Your task to perform on an android device: empty trash in the gmail app Image 0: 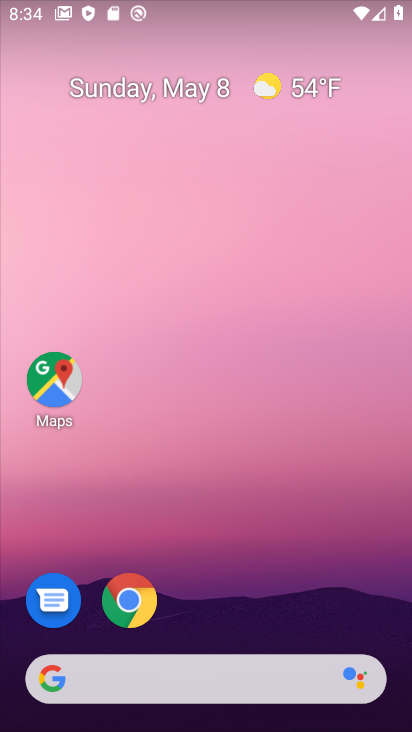
Step 0: drag from (194, 627) to (249, 209)
Your task to perform on an android device: empty trash in the gmail app Image 1: 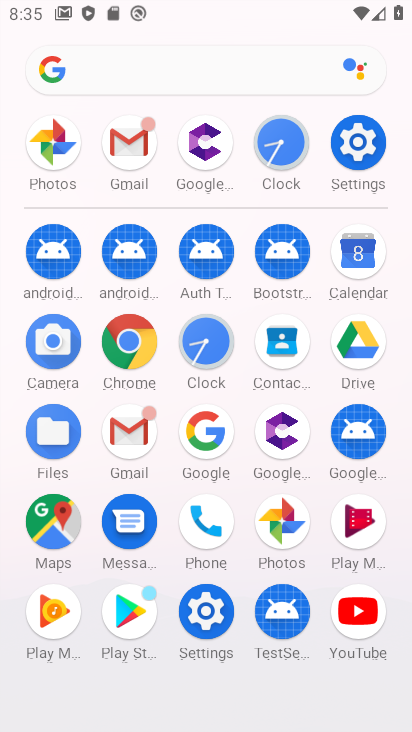
Step 1: click (151, 127)
Your task to perform on an android device: empty trash in the gmail app Image 2: 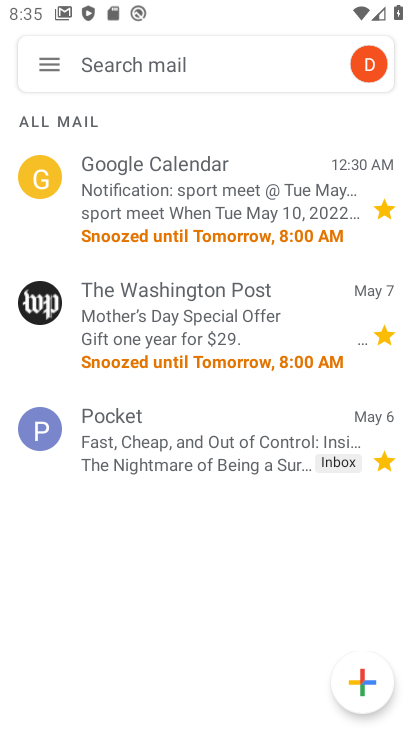
Step 2: click (44, 70)
Your task to perform on an android device: empty trash in the gmail app Image 3: 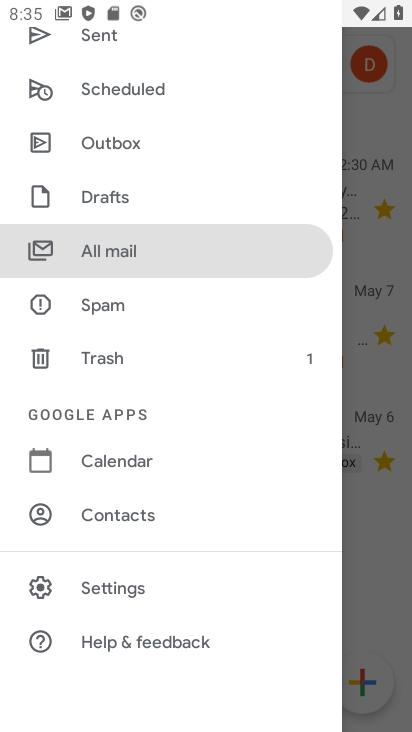
Step 3: click (225, 364)
Your task to perform on an android device: empty trash in the gmail app Image 4: 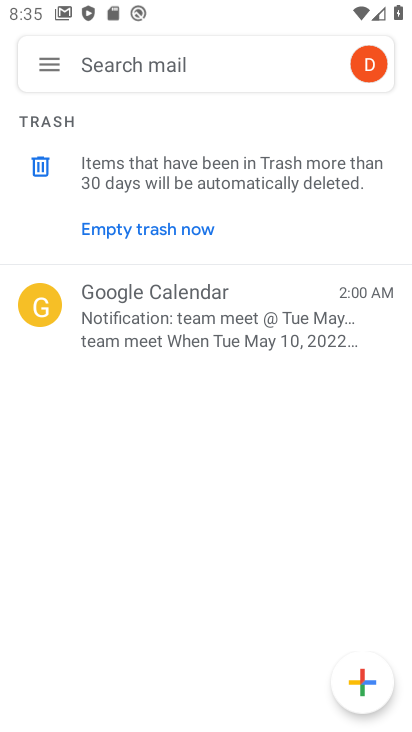
Step 4: click (135, 236)
Your task to perform on an android device: empty trash in the gmail app Image 5: 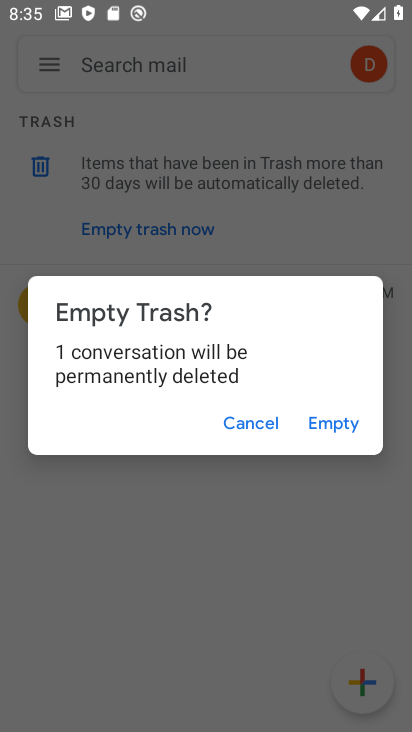
Step 5: click (321, 417)
Your task to perform on an android device: empty trash in the gmail app Image 6: 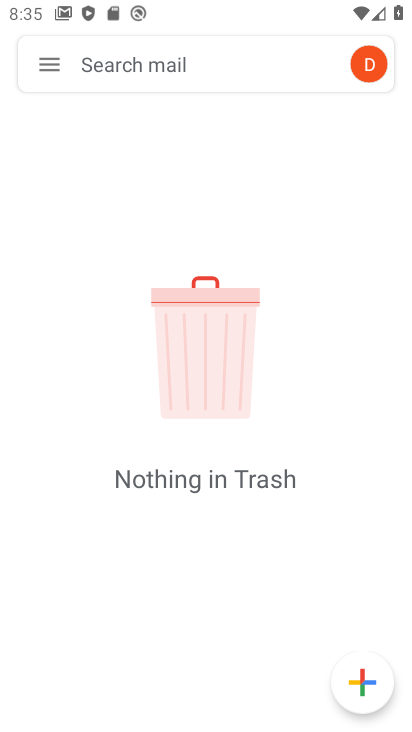
Step 6: task complete